Your task to perform on an android device: What's on my calendar tomorrow? Image 0: 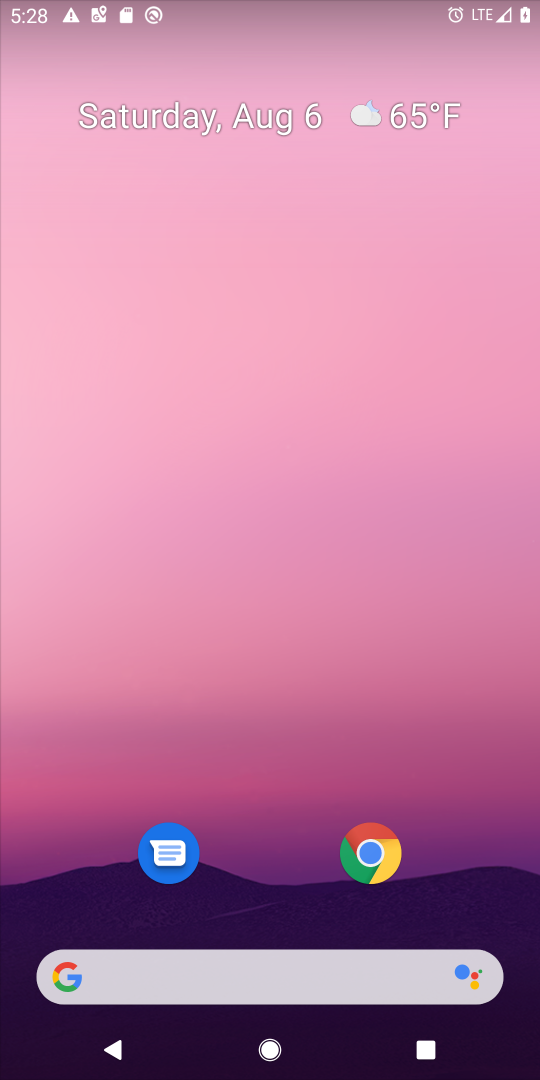
Step 0: drag from (267, 768) to (352, 85)
Your task to perform on an android device: What's on my calendar tomorrow? Image 1: 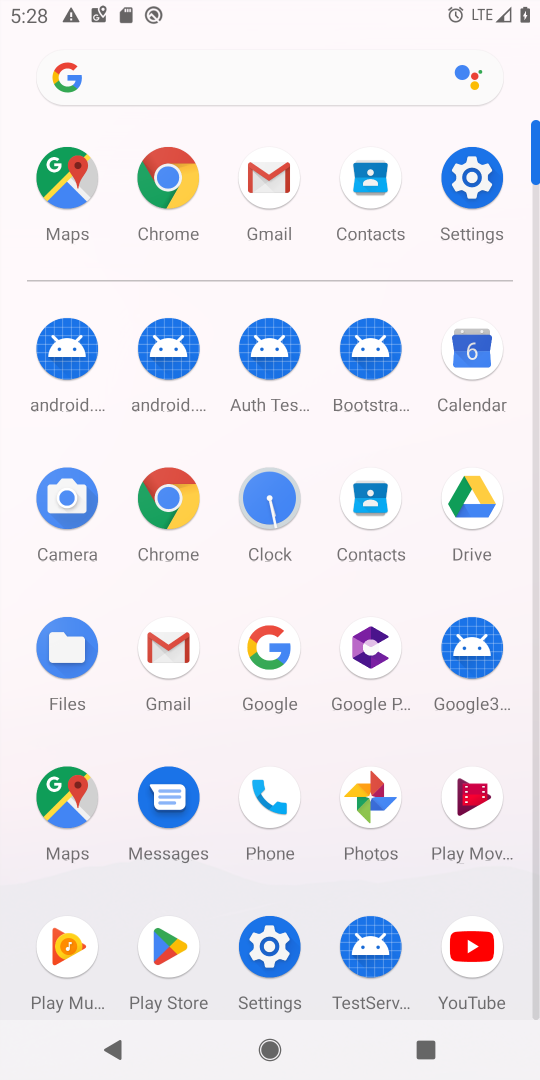
Step 1: click (470, 360)
Your task to perform on an android device: What's on my calendar tomorrow? Image 2: 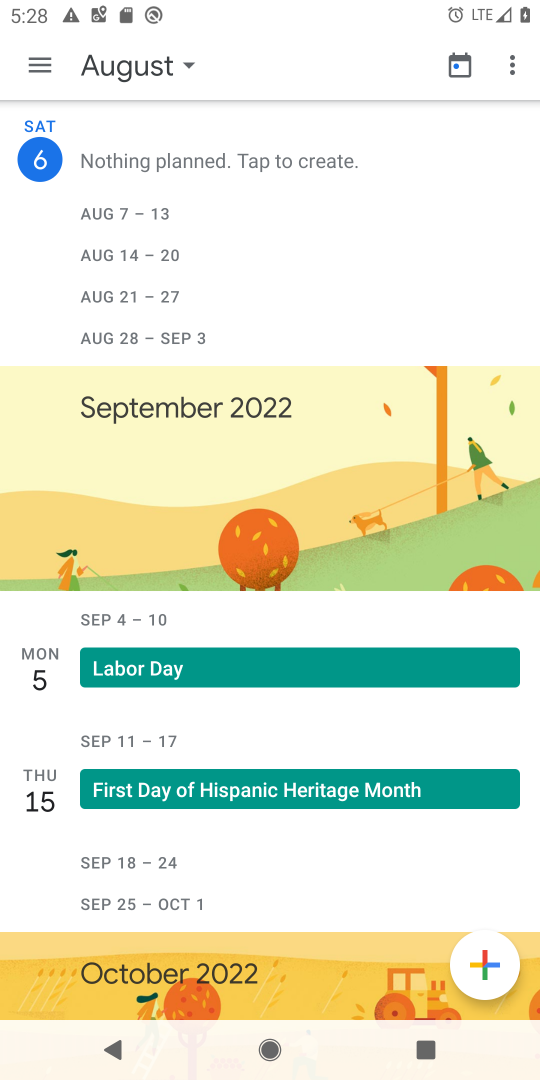
Step 2: task complete